Your task to perform on an android device: check google app version Image 0: 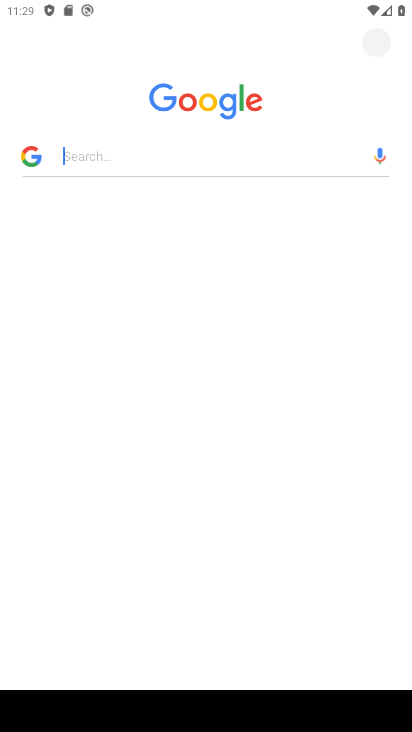
Step 0: click (198, 78)
Your task to perform on an android device: check google app version Image 1: 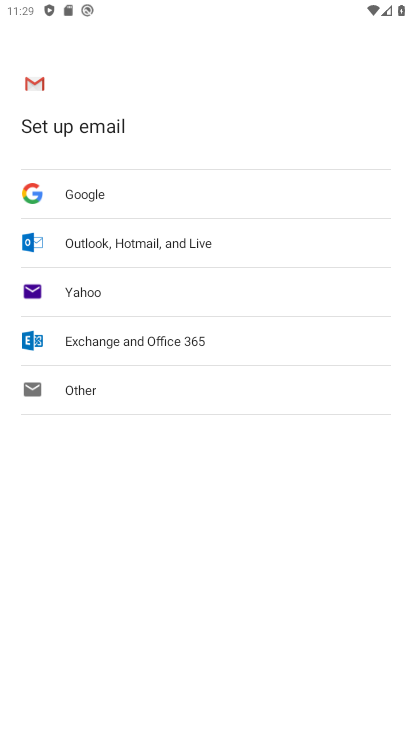
Step 1: press home button
Your task to perform on an android device: check google app version Image 2: 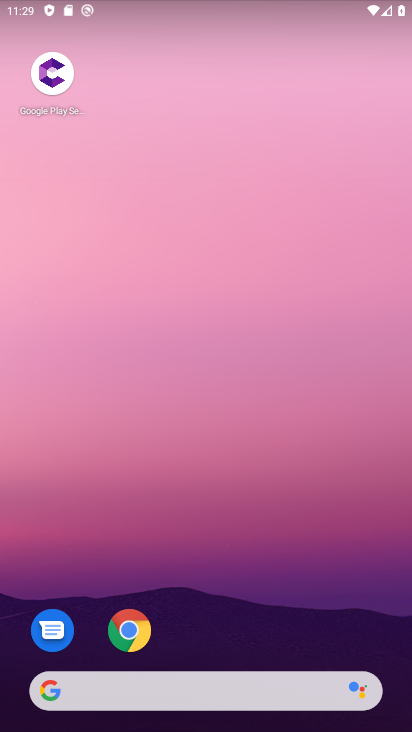
Step 2: drag from (277, 631) to (218, 137)
Your task to perform on an android device: check google app version Image 3: 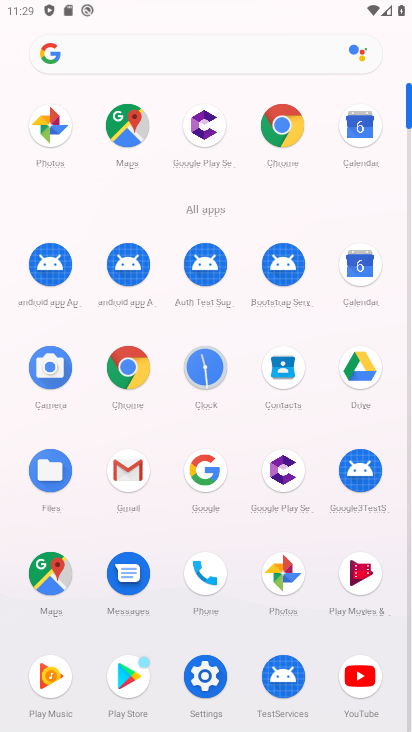
Step 3: click (279, 138)
Your task to perform on an android device: check google app version Image 4: 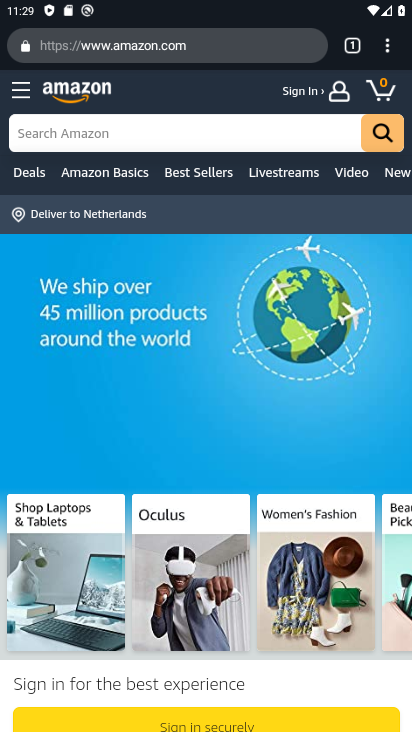
Step 4: click (381, 60)
Your task to perform on an android device: check google app version Image 5: 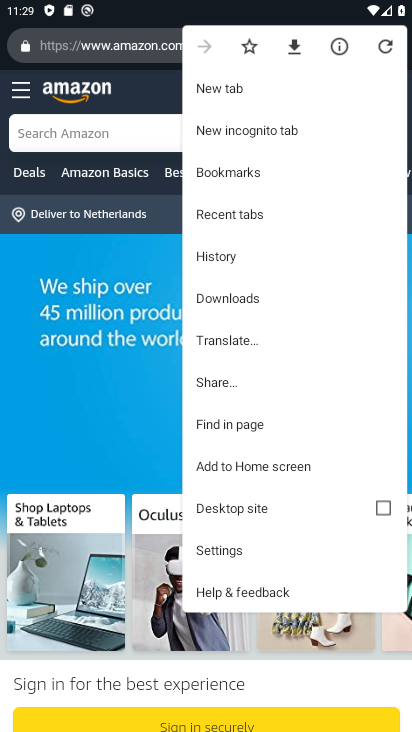
Step 5: click (280, 589)
Your task to perform on an android device: check google app version Image 6: 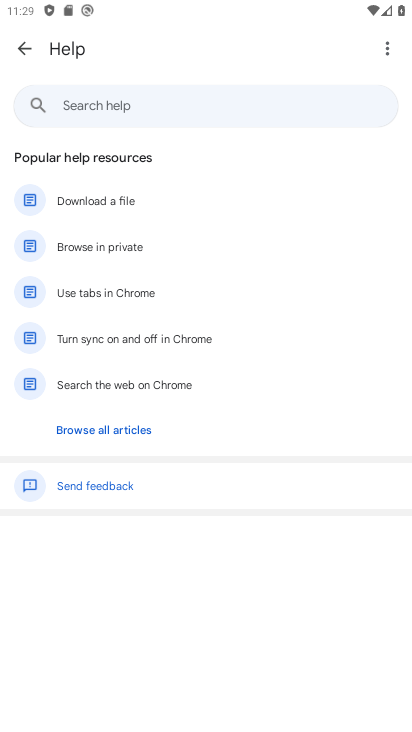
Step 6: click (387, 42)
Your task to perform on an android device: check google app version Image 7: 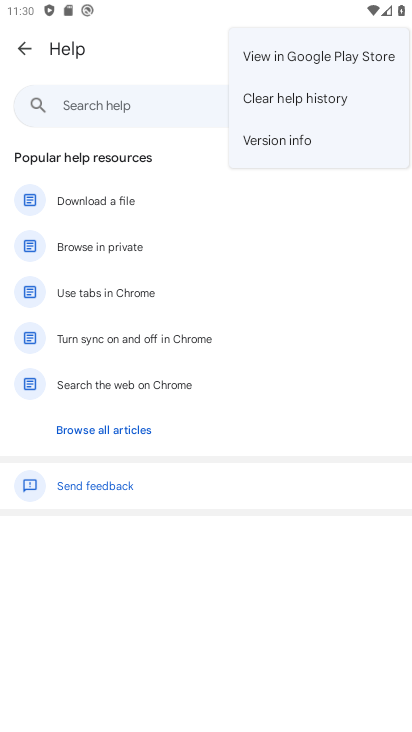
Step 7: click (288, 147)
Your task to perform on an android device: check google app version Image 8: 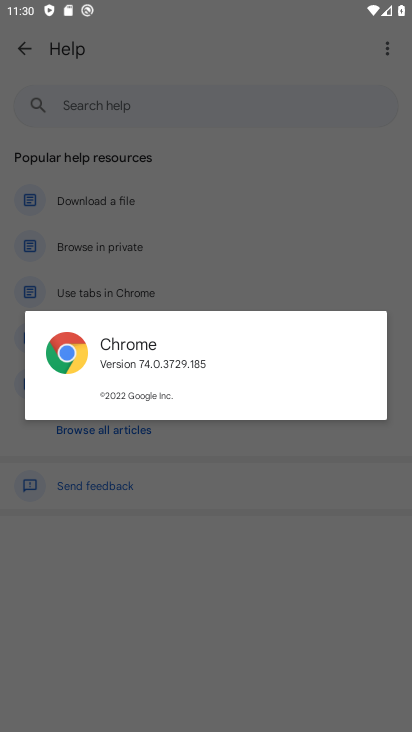
Step 8: task complete